Your task to perform on an android device: turn on data saver in the chrome app Image 0: 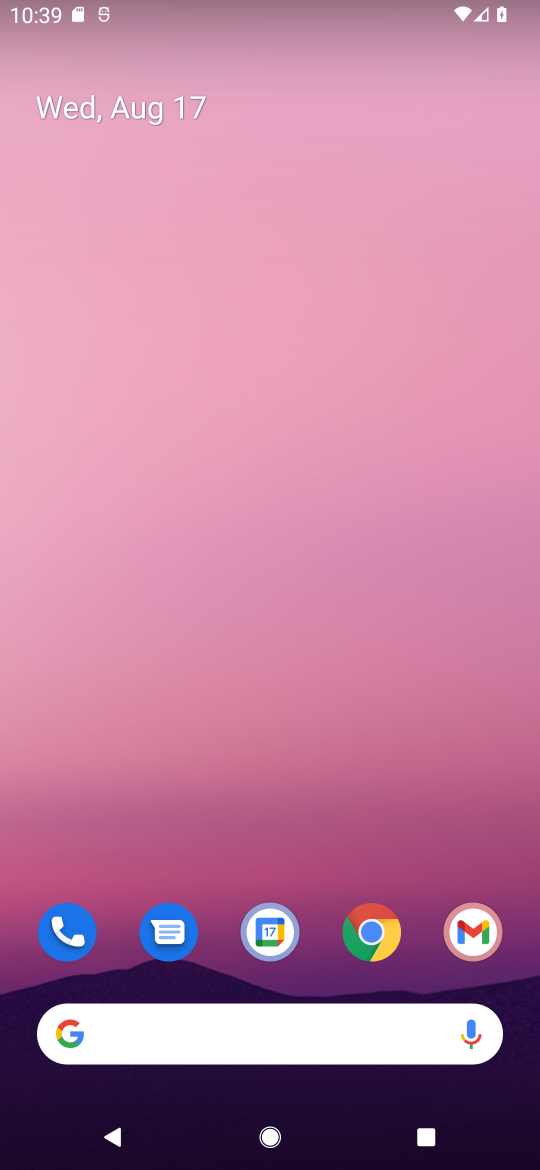
Step 0: click (372, 942)
Your task to perform on an android device: turn on data saver in the chrome app Image 1: 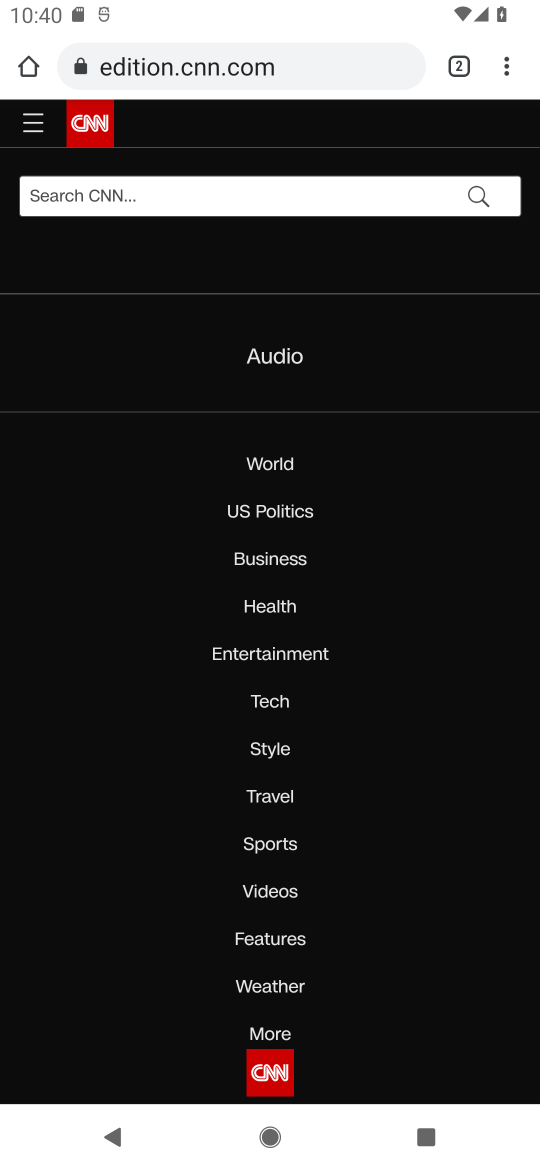
Step 1: click (509, 72)
Your task to perform on an android device: turn on data saver in the chrome app Image 2: 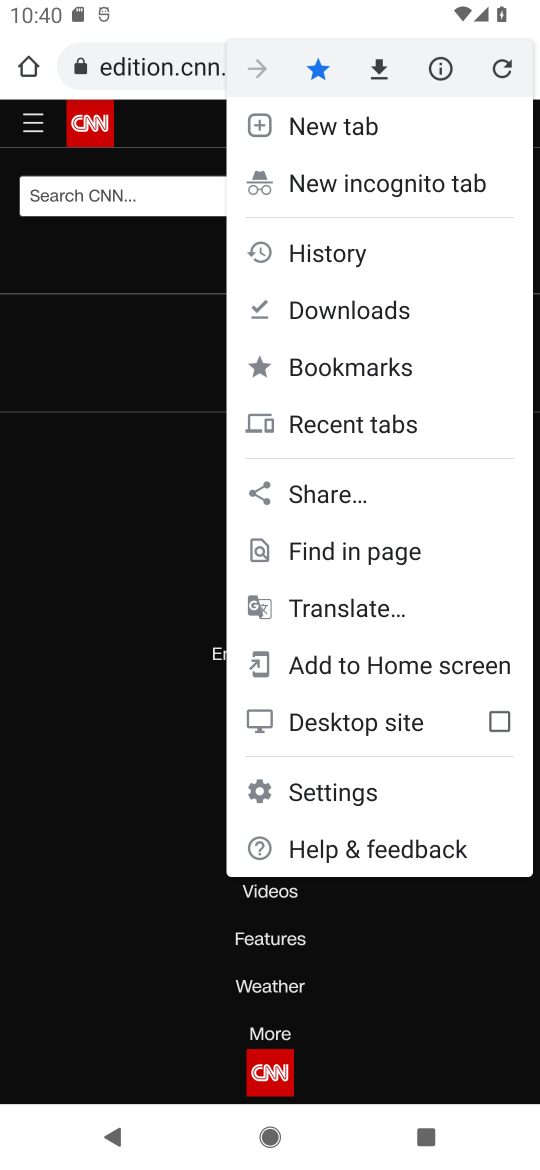
Step 2: click (344, 788)
Your task to perform on an android device: turn on data saver in the chrome app Image 3: 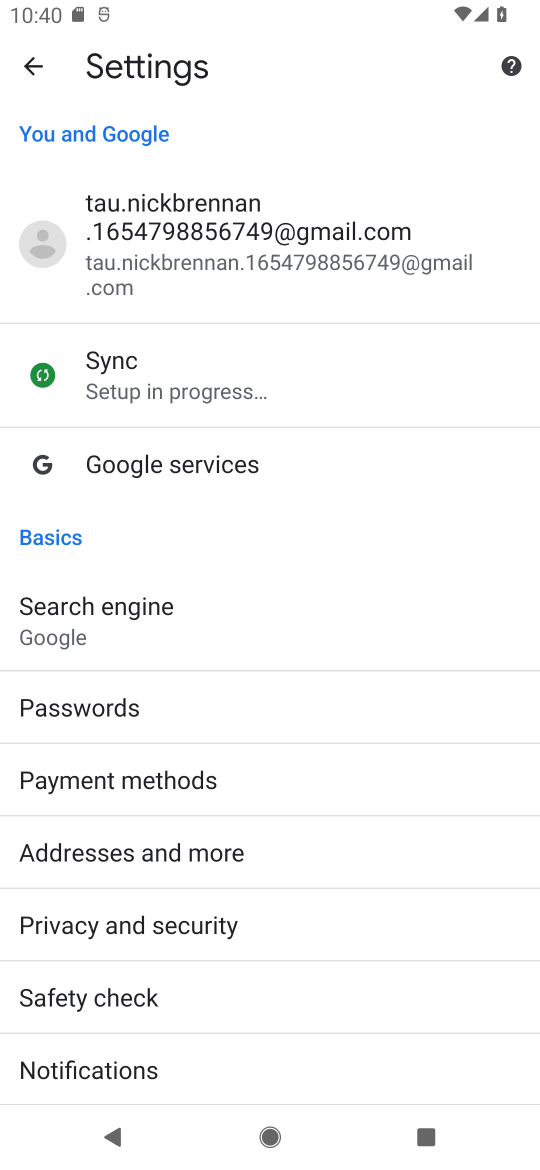
Step 3: drag from (163, 1024) to (227, 310)
Your task to perform on an android device: turn on data saver in the chrome app Image 4: 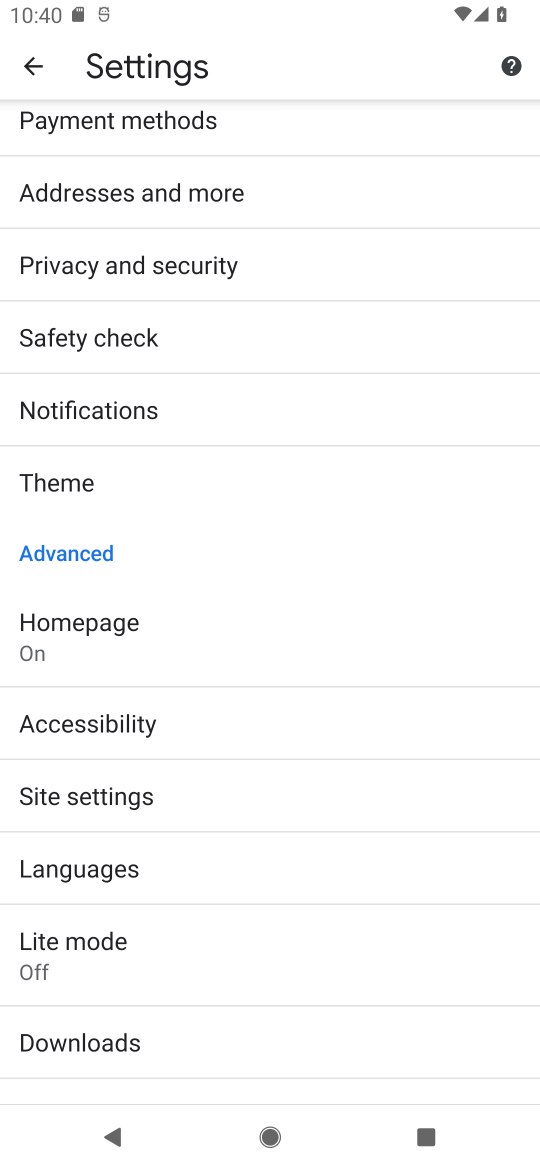
Step 4: click (103, 938)
Your task to perform on an android device: turn on data saver in the chrome app Image 5: 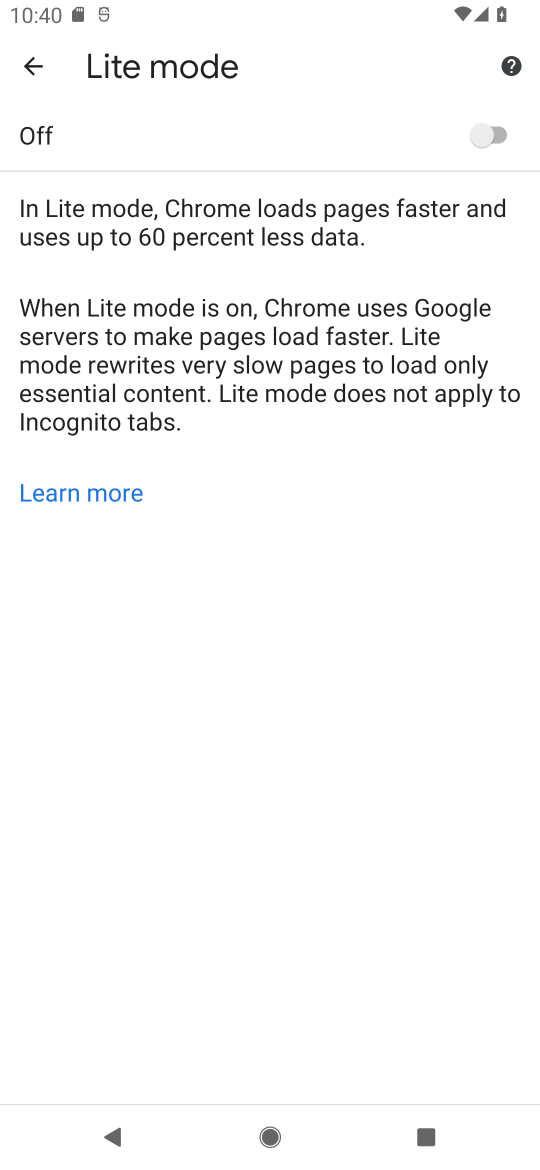
Step 5: click (498, 140)
Your task to perform on an android device: turn on data saver in the chrome app Image 6: 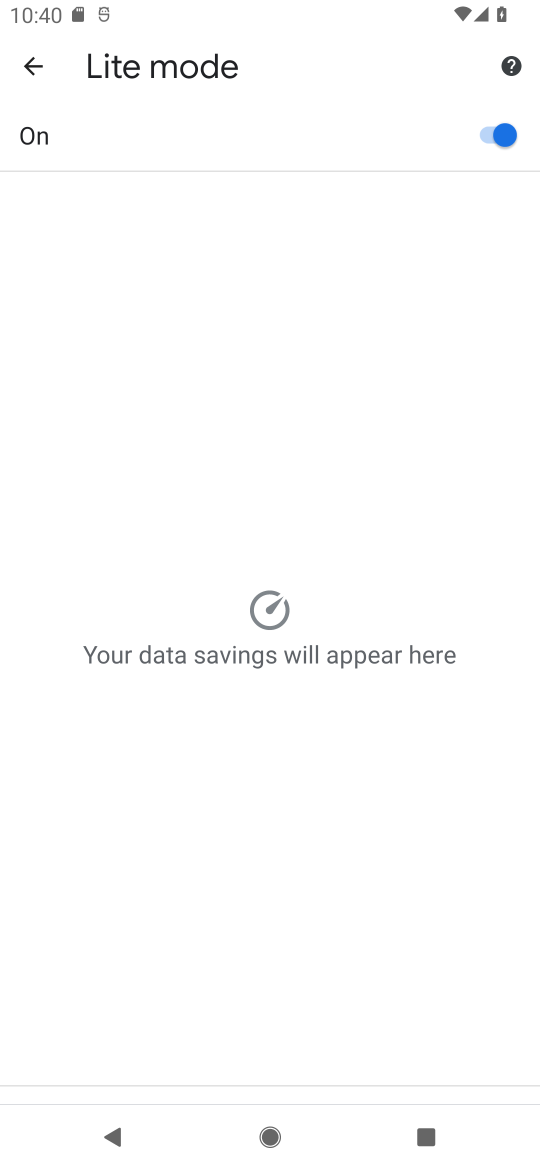
Step 6: task complete